Your task to perform on an android device: turn pop-ups on in chrome Image 0: 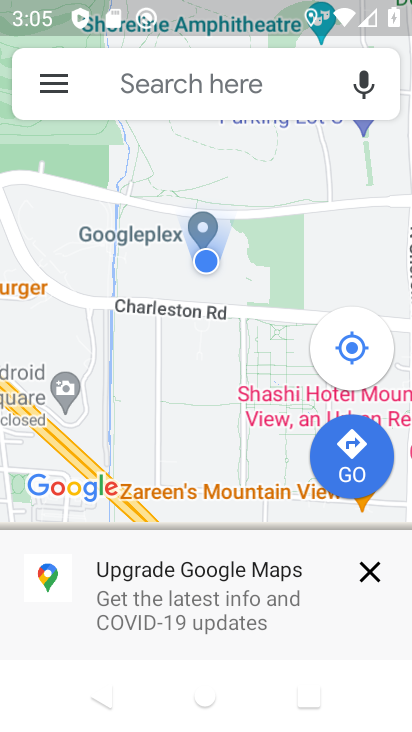
Step 0: press home button
Your task to perform on an android device: turn pop-ups on in chrome Image 1: 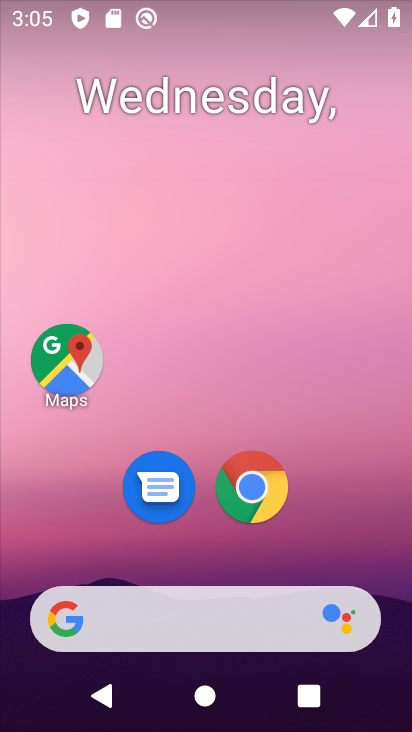
Step 1: drag from (366, 523) to (390, 100)
Your task to perform on an android device: turn pop-ups on in chrome Image 2: 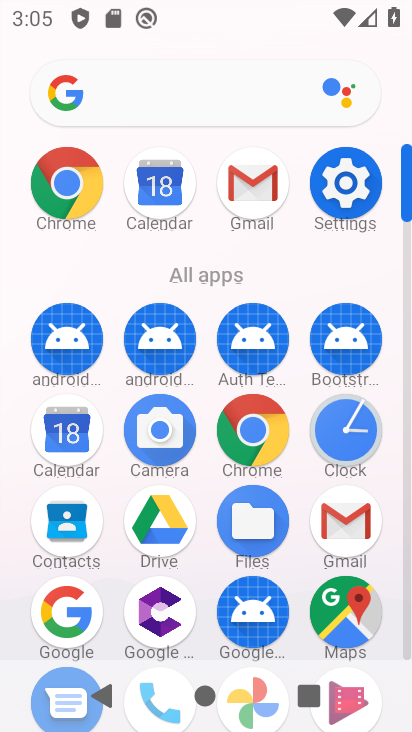
Step 2: click (274, 438)
Your task to perform on an android device: turn pop-ups on in chrome Image 3: 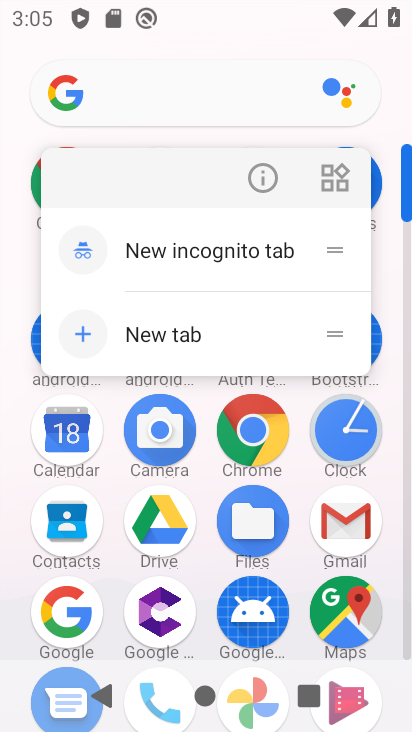
Step 3: click (245, 437)
Your task to perform on an android device: turn pop-ups on in chrome Image 4: 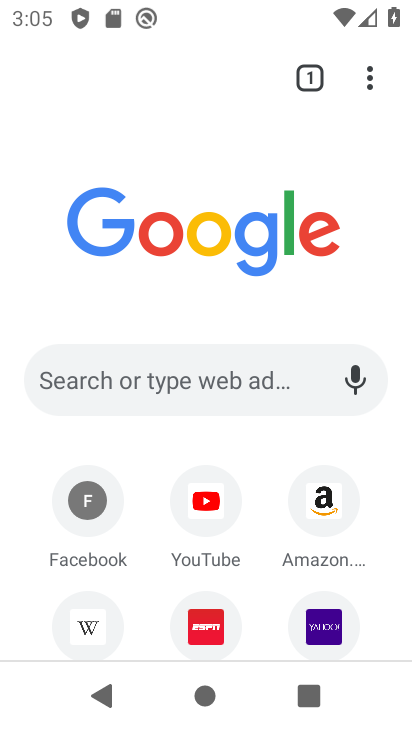
Step 4: click (371, 86)
Your task to perform on an android device: turn pop-ups on in chrome Image 5: 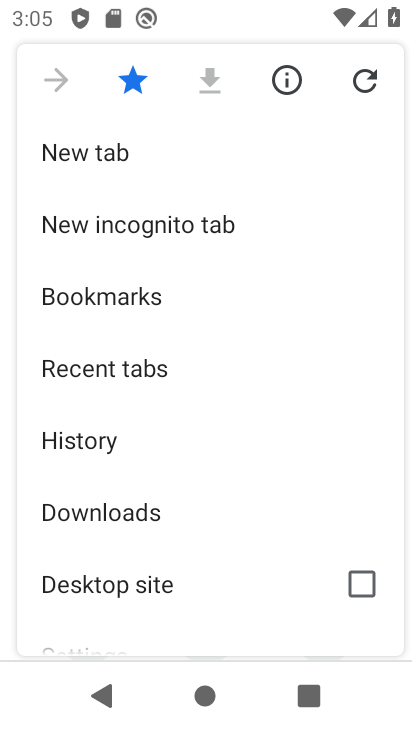
Step 5: drag from (268, 457) to (293, 273)
Your task to perform on an android device: turn pop-ups on in chrome Image 6: 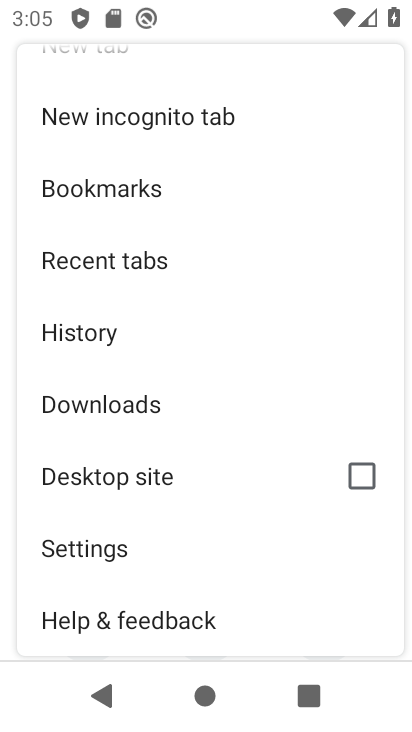
Step 6: drag from (260, 511) to (271, 309)
Your task to perform on an android device: turn pop-ups on in chrome Image 7: 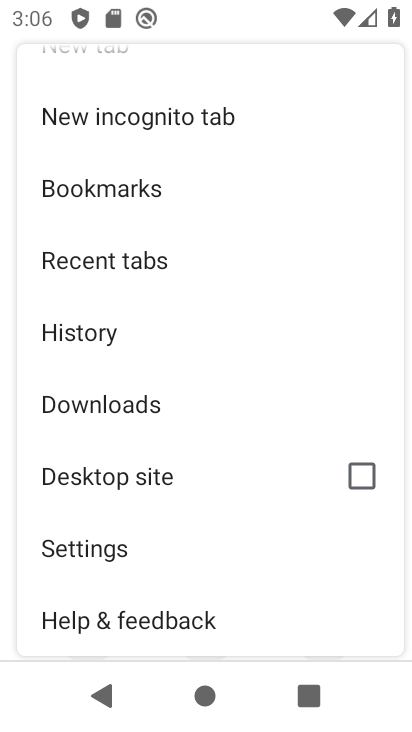
Step 7: drag from (251, 540) to (259, 394)
Your task to perform on an android device: turn pop-ups on in chrome Image 8: 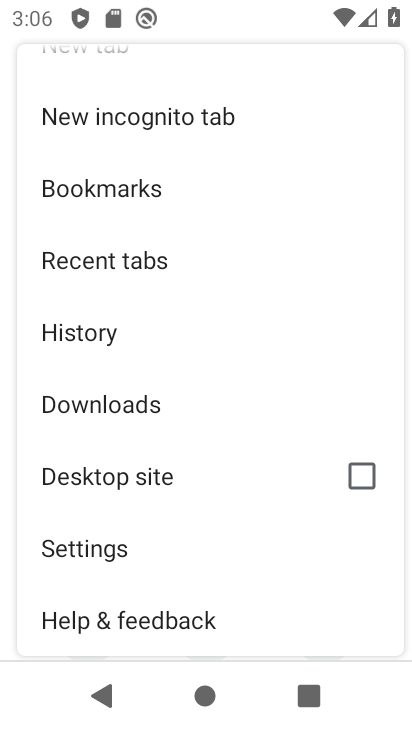
Step 8: click (149, 561)
Your task to perform on an android device: turn pop-ups on in chrome Image 9: 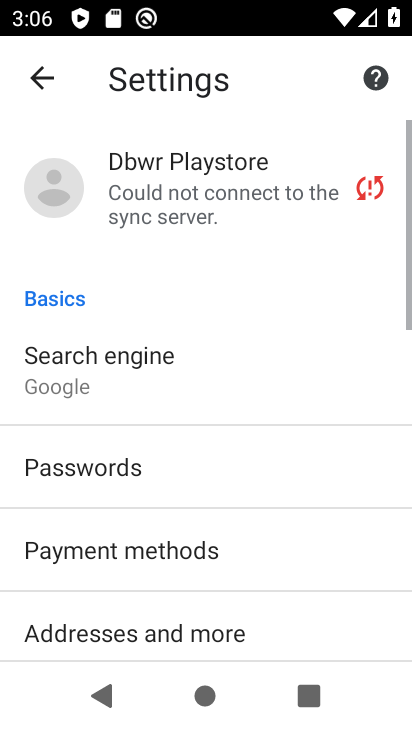
Step 9: drag from (270, 579) to (273, 472)
Your task to perform on an android device: turn pop-ups on in chrome Image 10: 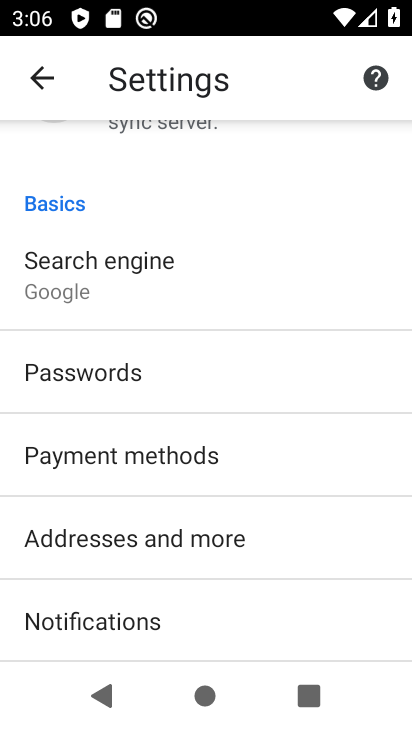
Step 10: drag from (270, 614) to (283, 462)
Your task to perform on an android device: turn pop-ups on in chrome Image 11: 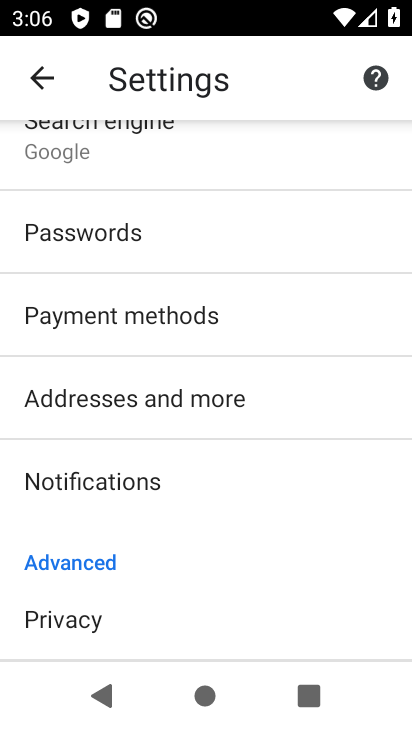
Step 11: drag from (259, 582) to (267, 436)
Your task to perform on an android device: turn pop-ups on in chrome Image 12: 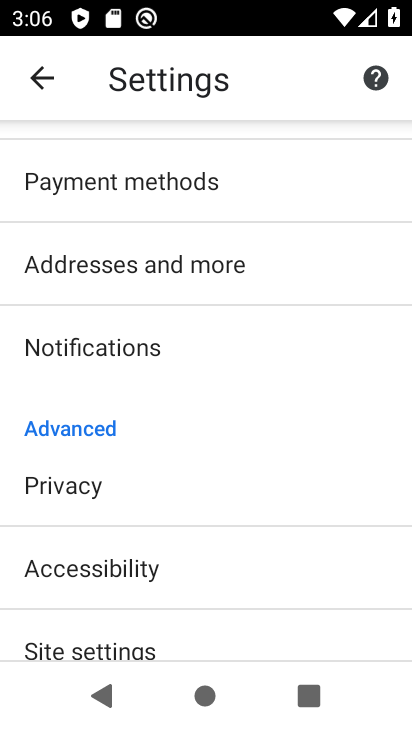
Step 12: drag from (266, 578) to (266, 412)
Your task to perform on an android device: turn pop-ups on in chrome Image 13: 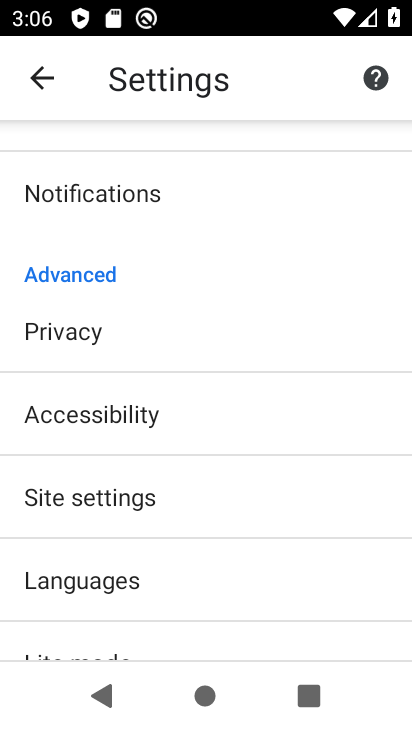
Step 13: drag from (244, 567) to (273, 408)
Your task to perform on an android device: turn pop-ups on in chrome Image 14: 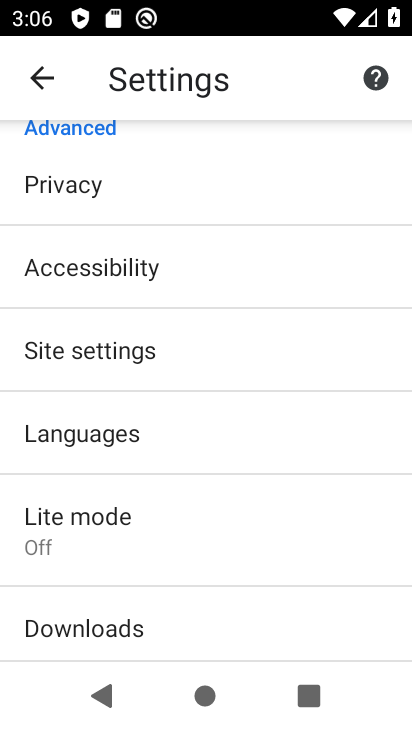
Step 14: drag from (254, 571) to (276, 450)
Your task to perform on an android device: turn pop-ups on in chrome Image 15: 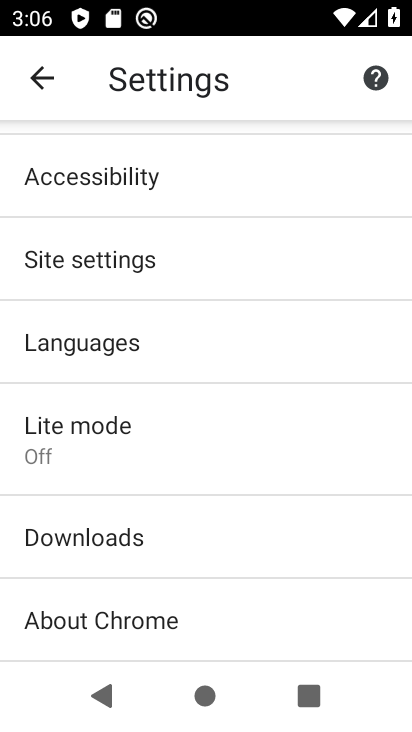
Step 15: drag from (273, 581) to (269, 442)
Your task to perform on an android device: turn pop-ups on in chrome Image 16: 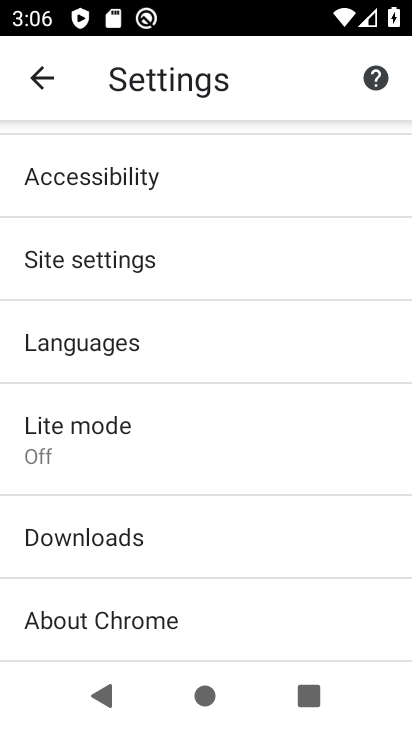
Step 16: drag from (301, 241) to (286, 416)
Your task to perform on an android device: turn pop-ups on in chrome Image 17: 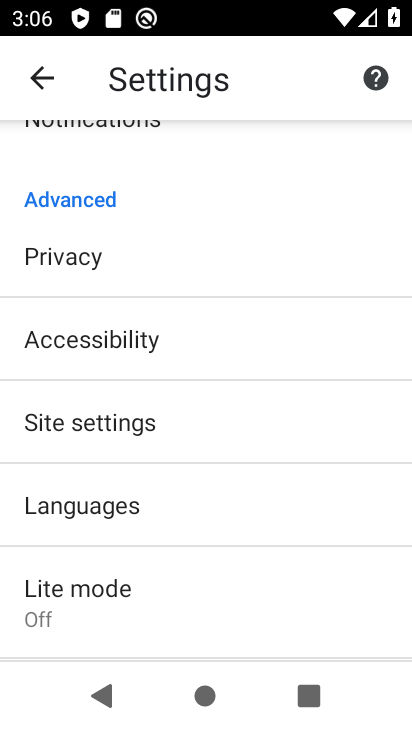
Step 17: drag from (262, 250) to (271, 406)
Your task to perform on an android device: turn pop-ups on in chrome Image 18: 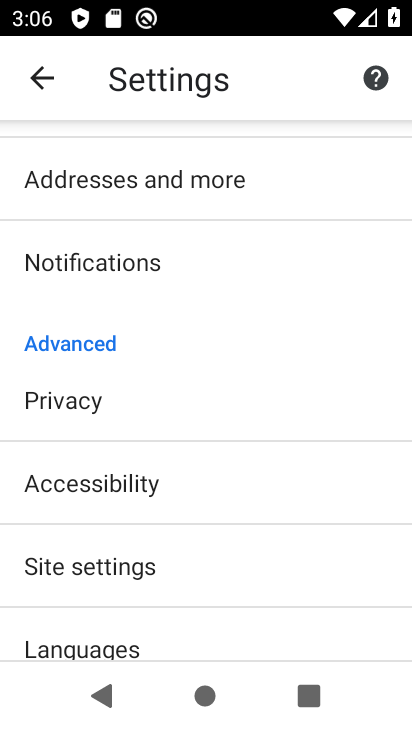
Step 18: click (196, 571)
Your task to perform on an android device: turn pop-ups on in chrome Image 19: 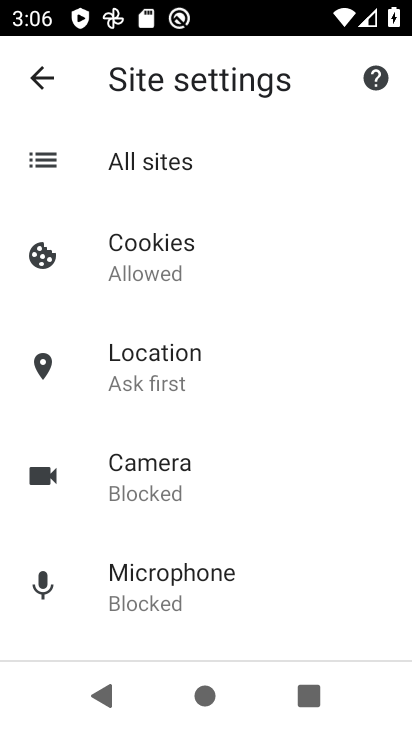
Step 19: drag from (308, 316) to (299, 514)
Your task to perform on an android device: turn pop-ups on in chrome Image 20: 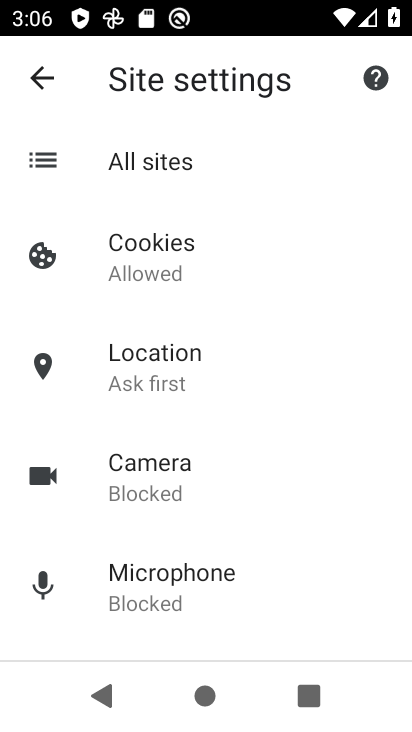
Step 20: drag from (305, 568) to (294, 380)
Your task to perform on an android device: turn pop-ups on in chrome Image 21: 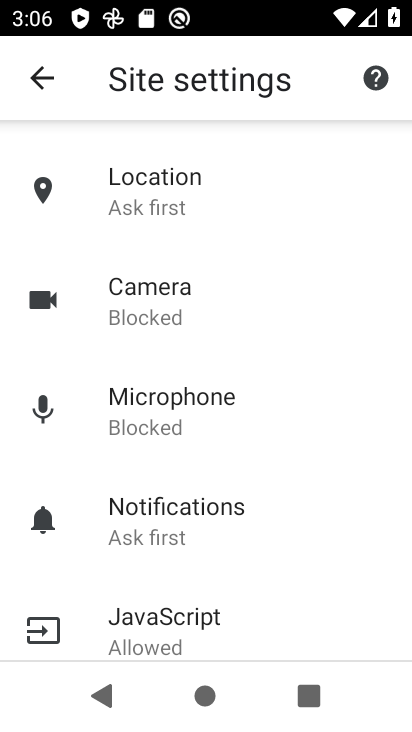
Step 21: drag from (301, 542) to (303, 400)
Your task to perform on an android device: turn pop-ups on in chrome Image 22: 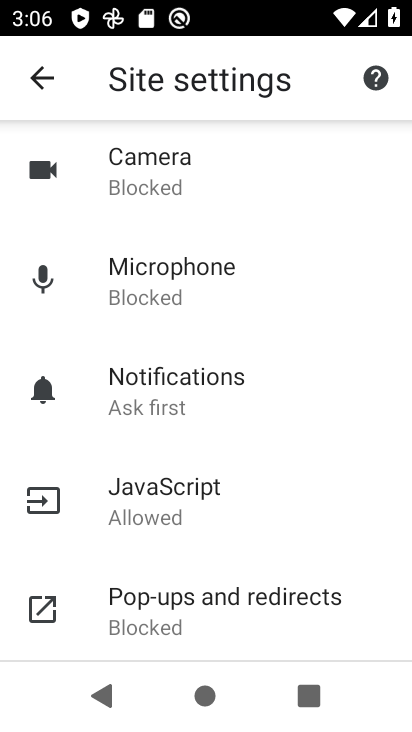
Step 22: click (275, 616)
Your task to perform on an android device: turn pop-ups on in chrome Image 23: 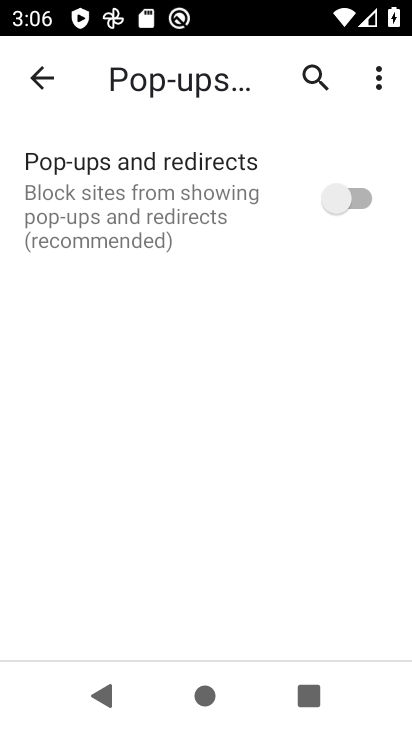
Step 23: click (339, 201)
Your task to perform on an android device: turn pop-ups on in chrome Image 24: 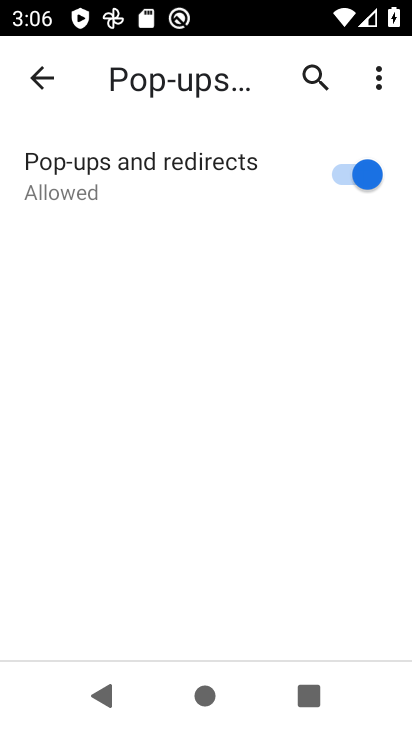
Step 24: task complete